Your task to perform on an android device: Do I have any events today? Image 0: 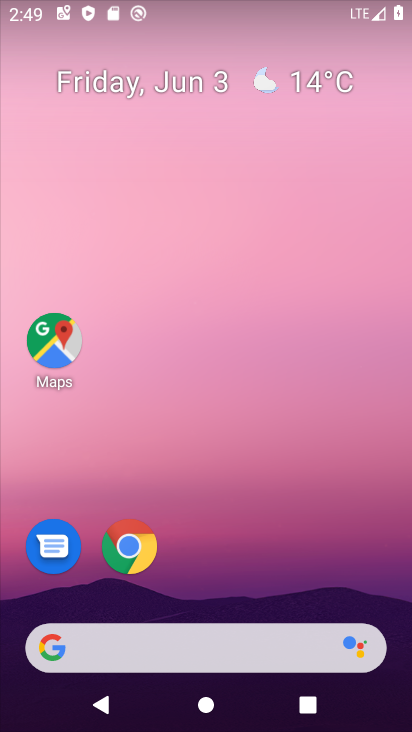
Step 0: drag from (268, 573) to (406, 94)
Your task to perform on an android device: Do I have any events today? Image 1: 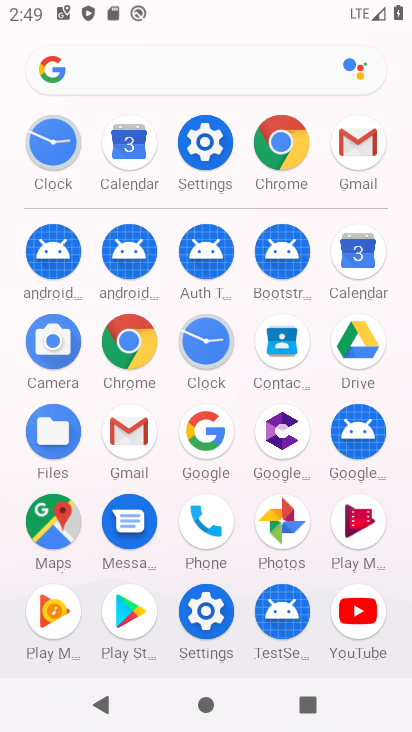
Step 1: click (375, 264)
Your task to perform on an android device: Do I have any events today? Image 2: 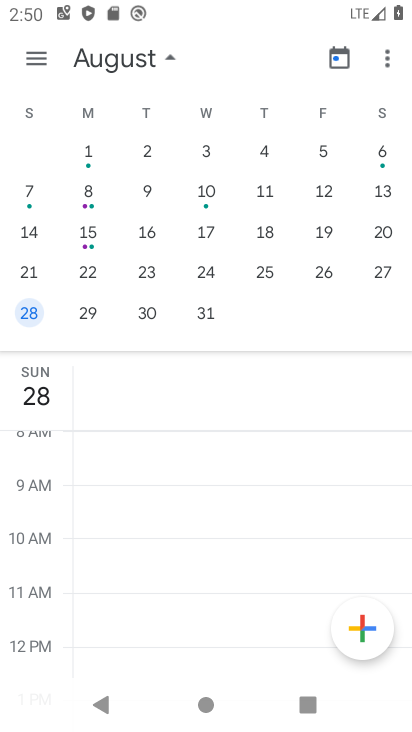
Step 2: task complete